Your task to perform on an android device: Find coffee shops on Maps Image 0: 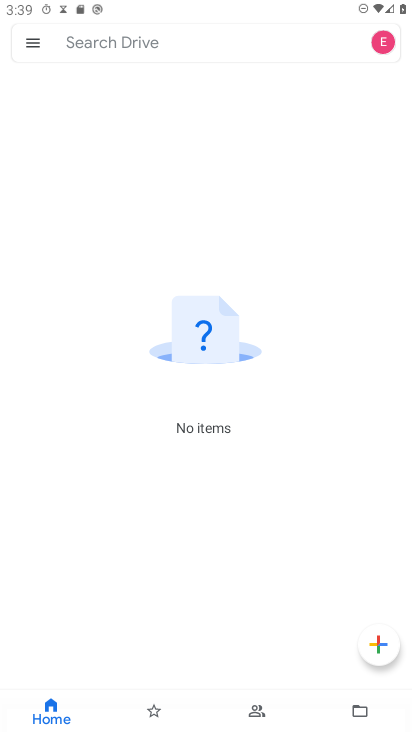
Step 0: press home button
Your task to perform on an android device: Find coffee shops on Maps Image 1: 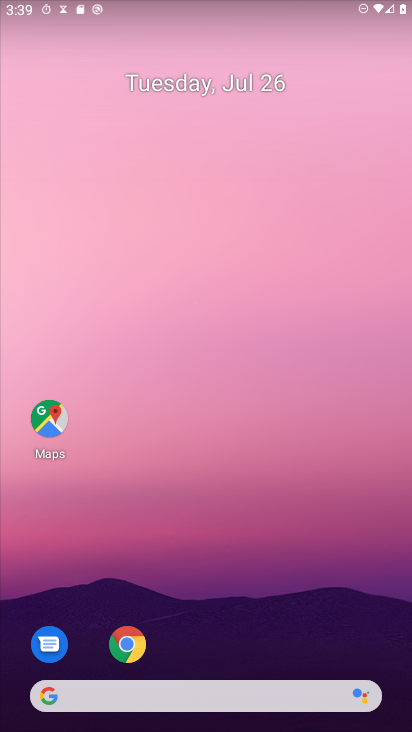
Step 1: click (62, 419)
Your task to perform on an android device: Find coffee shops on Maps Image 2: 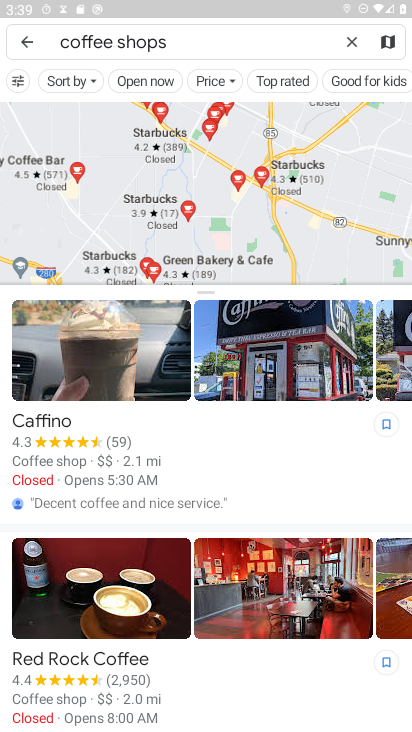
Step 2: click (12, 40)
Your task to perform on an android device: Find coffee shops on Maps Image 3: 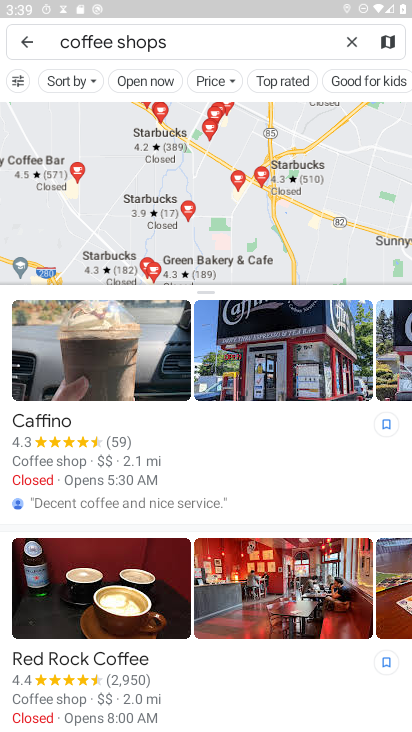
Step 3: click (20, 39)
Your task to perform on an android device: Find coffee shops on Maps Image 4: 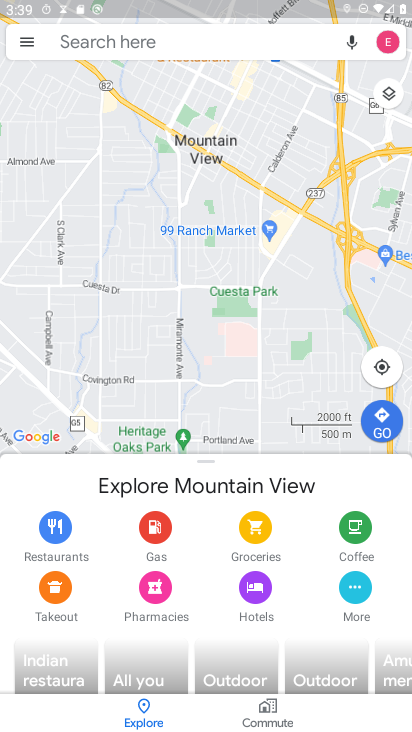
Step 4: click (162, 45)
Your task to perform on an android device: Find coffee shops on Maps Image 5: 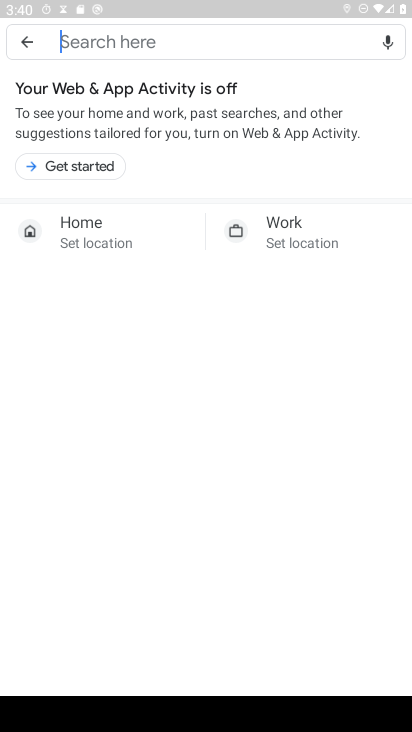
Step 5: type "coffee shops "
Your task to perform on an android device: Find coffee shops on Maps Image 6: 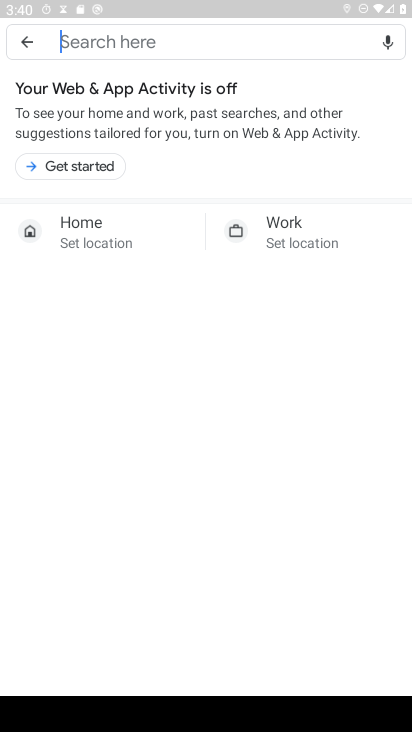
Step 6: click (112, 34)
Your task to perform on an android device: Find coffee shops on Maps Image 7: 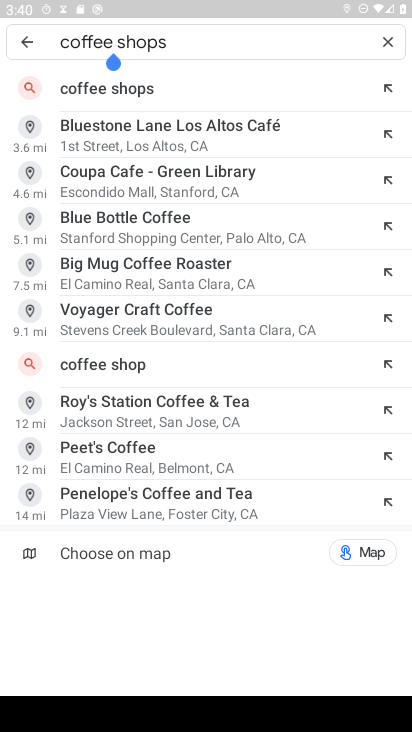
Step 7: click (76, 89)
Your task to perform on an android device: Find coffee shops on Maps Image 8: 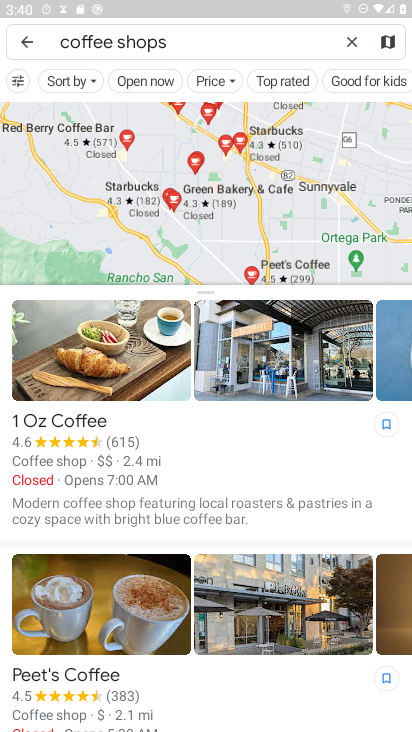
Step 8: task complete